Your task to perform on an android device: Turn on the flashlight Image 0: 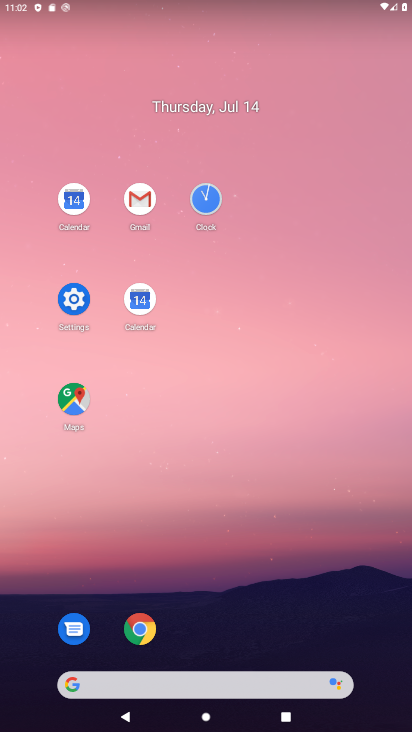
Step 0: drag from (350, 0) to (352, 338)
Your task to perform on an android device: Turn on the flashlight Image 1: 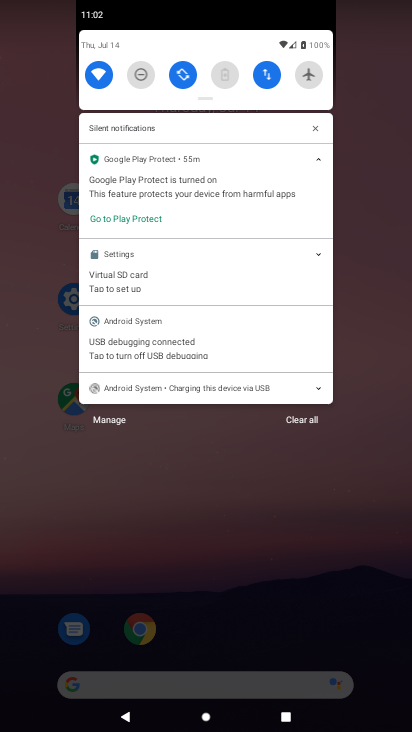
Step 1: task complete